Your task to perform on an android device: Show the shopping cart on newegg. Add bose soundsport free to the cart on newegg Image 0: 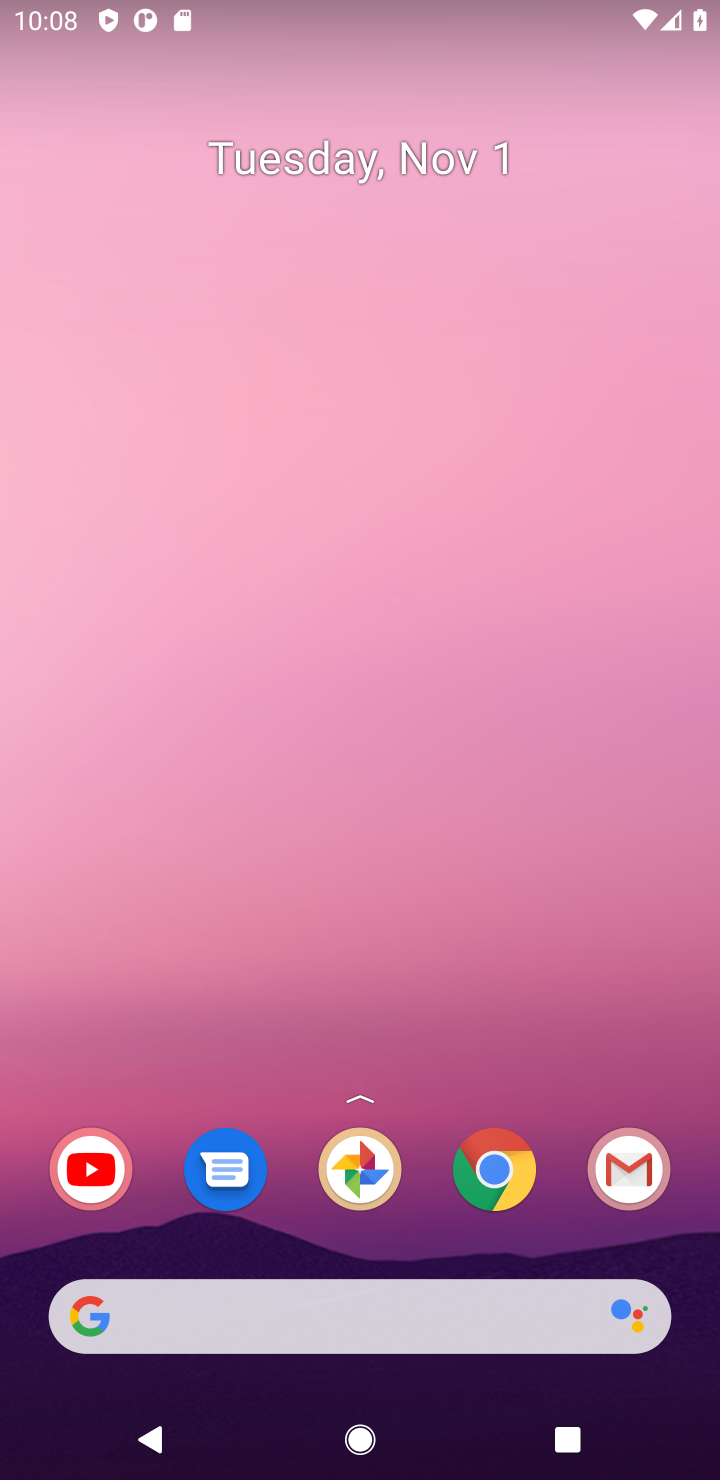
Step 0: click (501, 1179)
Your task to perform on an android device: Show the shopping cart on newegg. Add bose soundsport free to the cart on newegg Image 1: 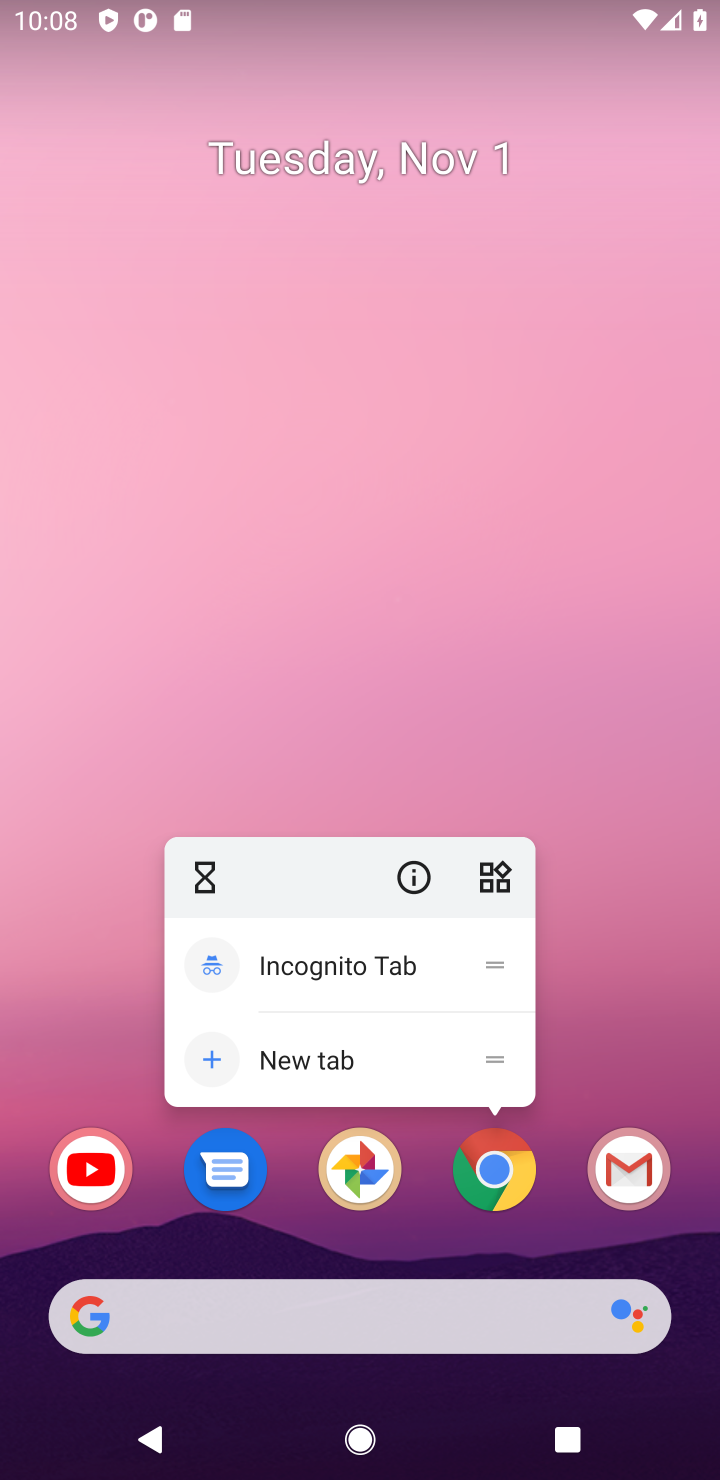
Step 1: click (501, 1179)
Your task to perform on an android device: Show the shopping cart on newegg. Add bose soundsport free to the cart on newegg Image 2: 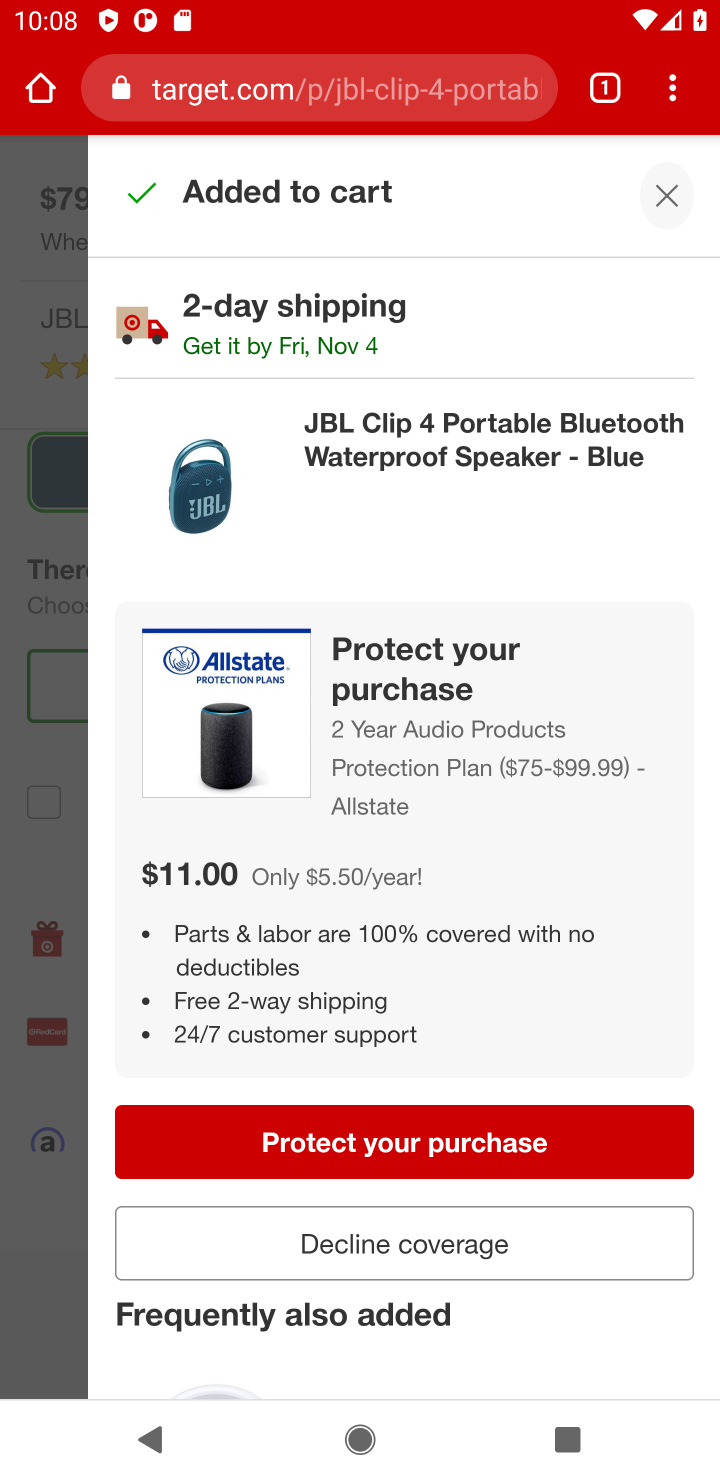
Step 2: click (410, 78)
Your task to perform on an android device: Show the shopping cart on newegg. Add bose soundsport free to the cart on newegg Image 3: 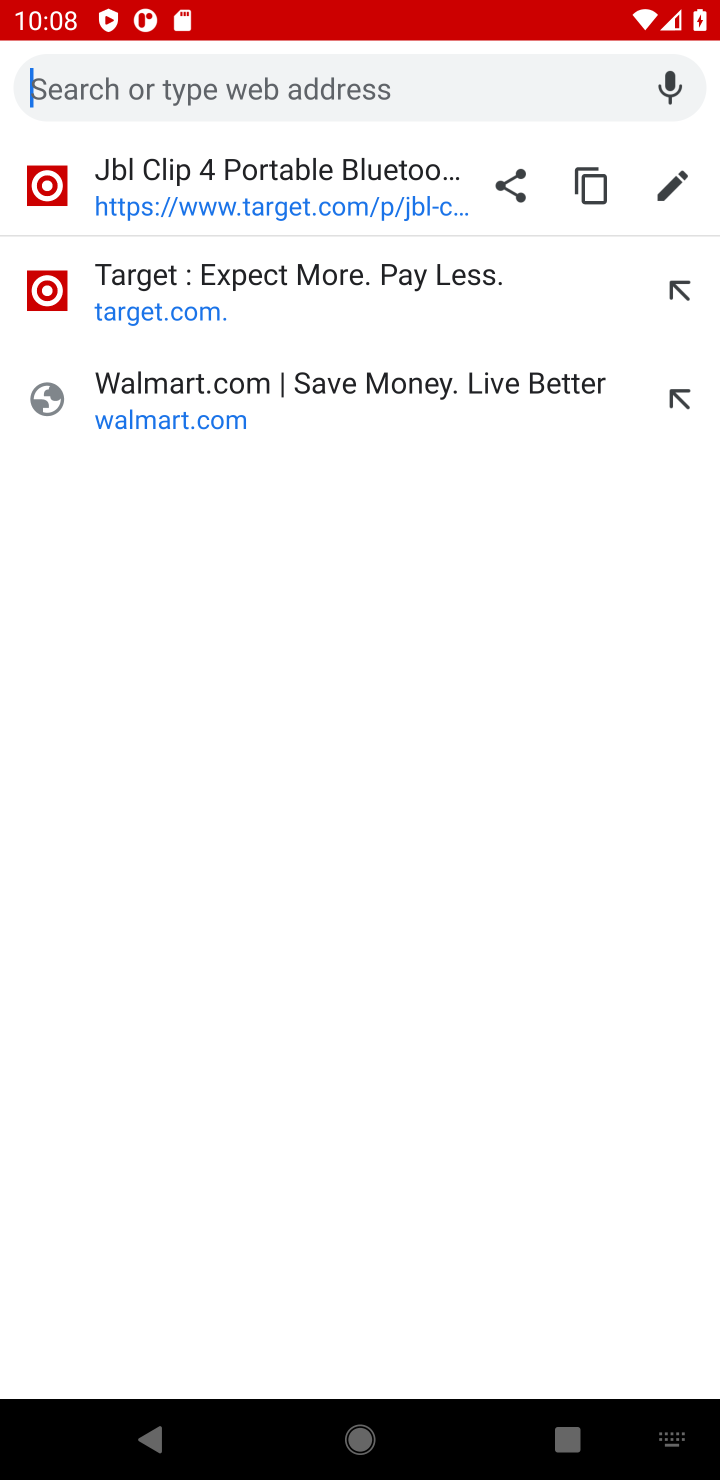
Step 3: type "newegg"
Your task to perform on an android device: Show the shopping cart on newegg. Add bose soundsport free to the cart on newegg Image 4: 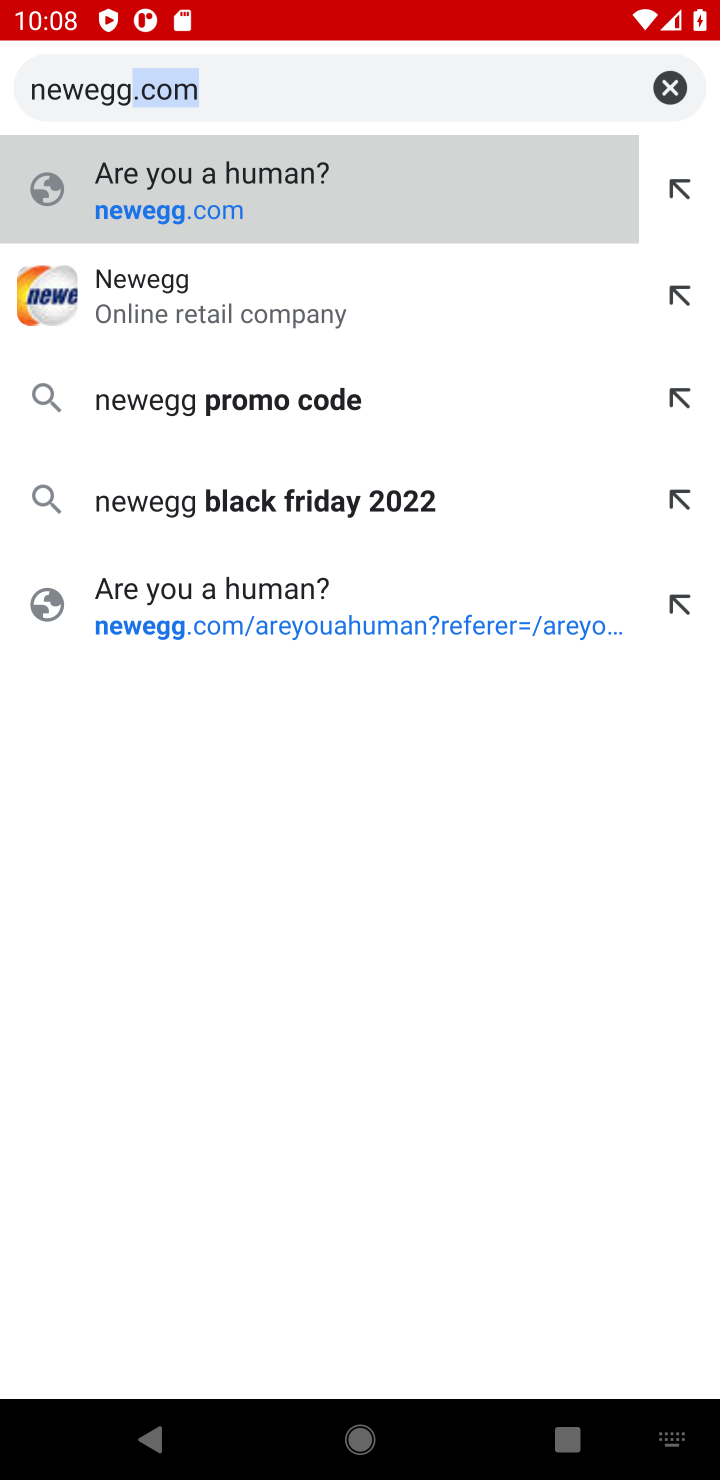
Step 4: click (353, 314)
Your task to perform on an android device: Show the shopping cart on newegg. Add bose soundsport free to the cart on newegg Image 5: 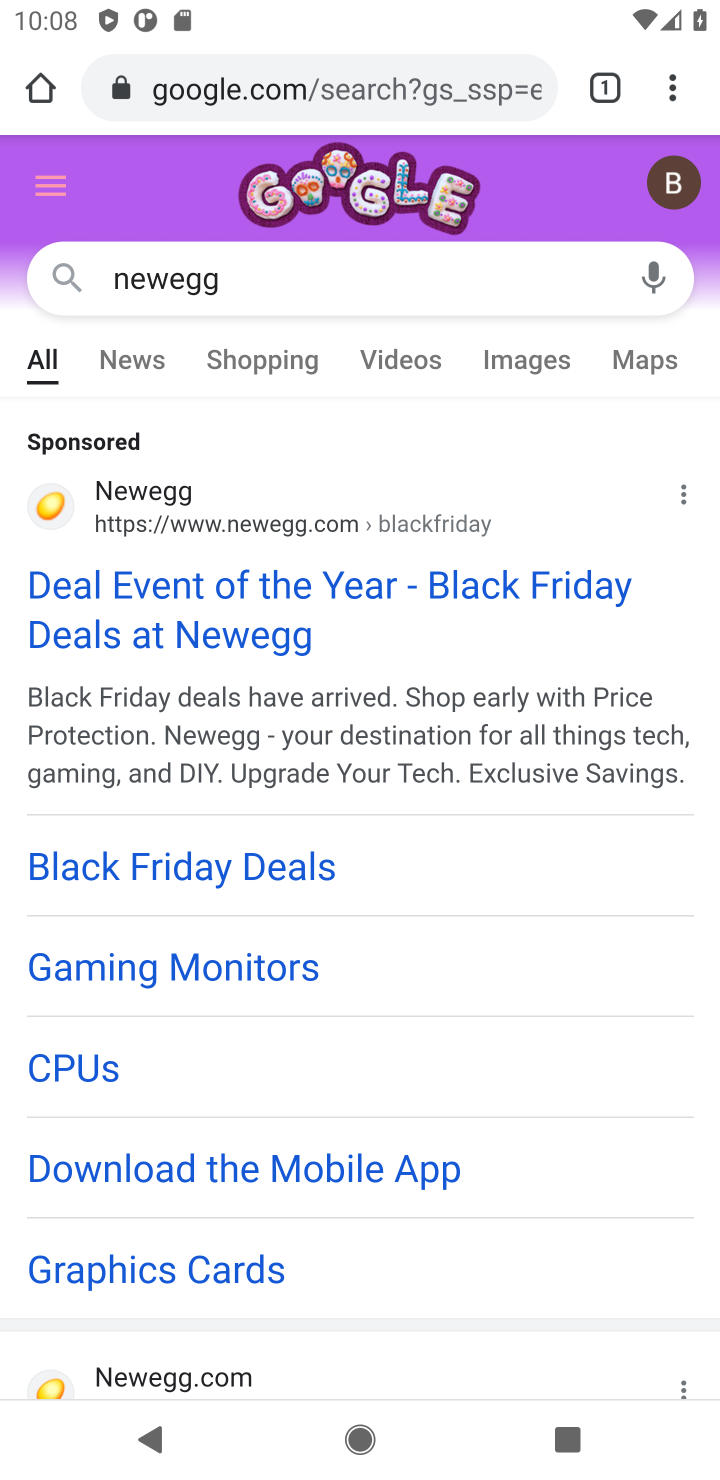
Step 5: drag from (357, 1023) to (344, 546)
Your task to perform on an android device: Show the shopping cart on newegg. Add bose soundsport free to the cart on newegg Image 6: 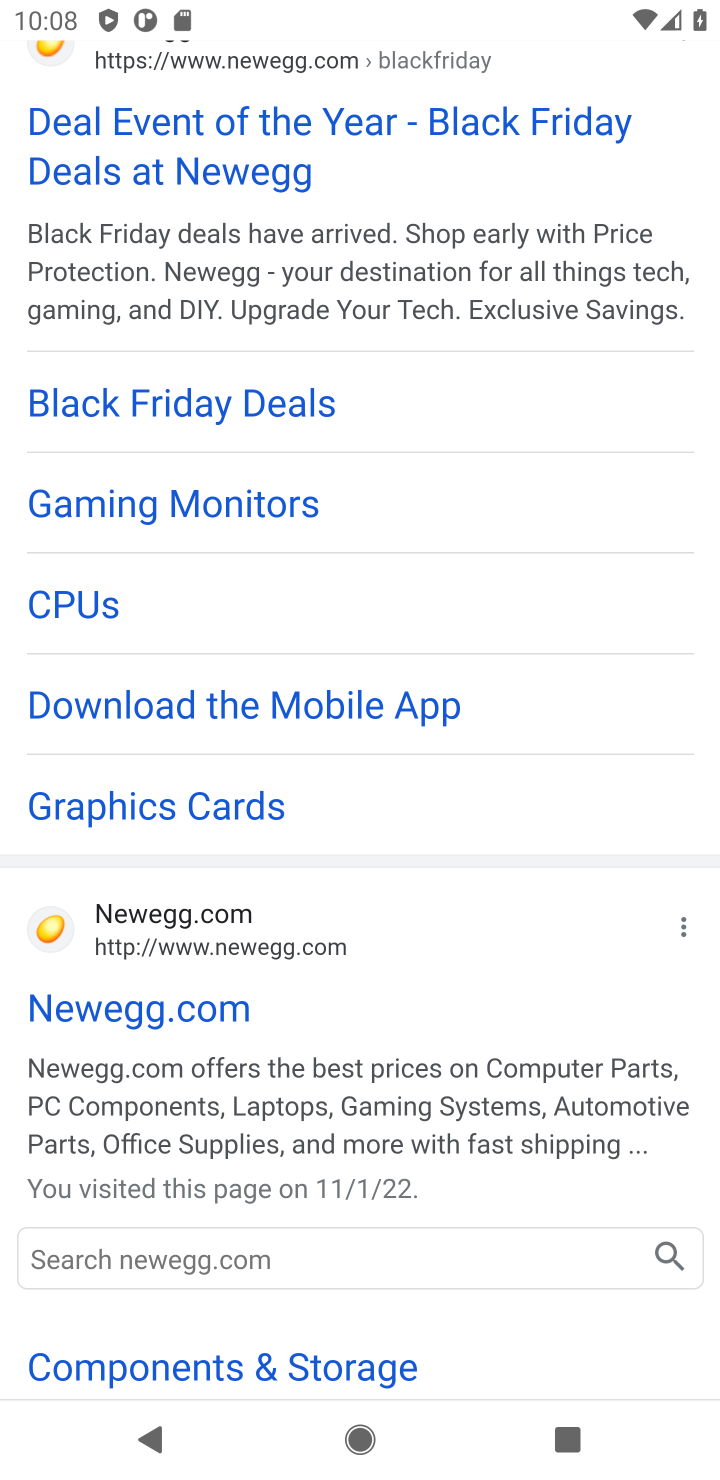
Step 6: click (208, 932)
Your task to perform on an android device: Show the shopping cart on newegg. Add bose soundsport free to the cart on newegg Image 7: 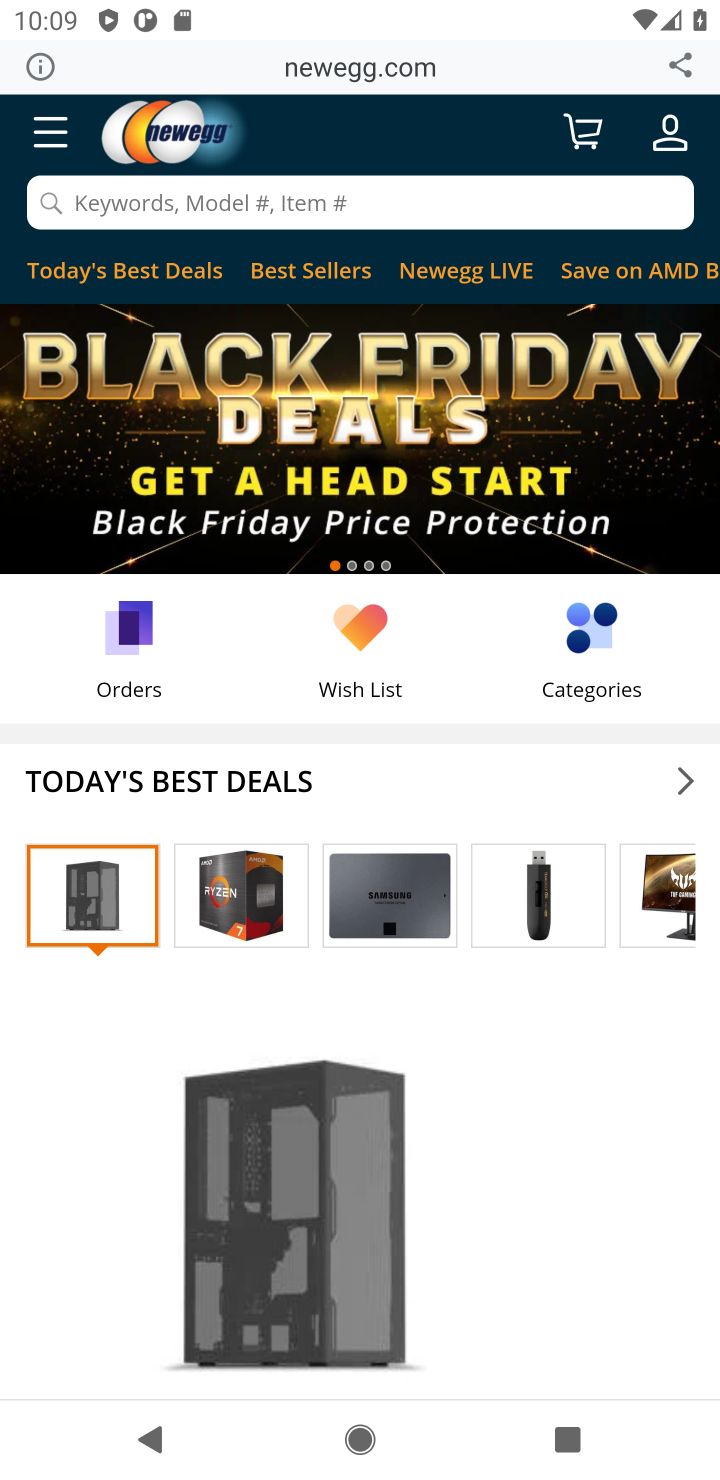
Step 7: click (587, 120)
Your task to perform on an android device: Show the shopping cart on newegg. Add bose soundsport free to the cart on newegg Image 8: 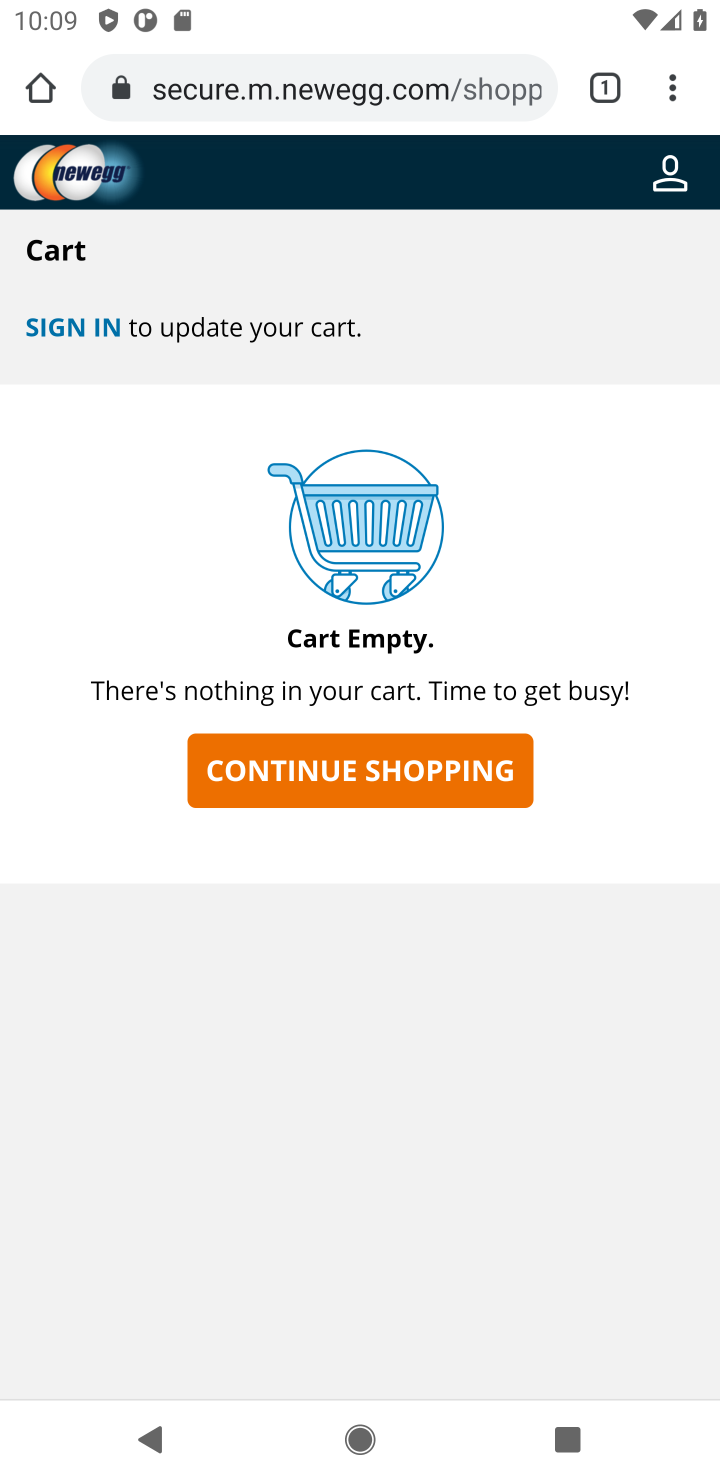
Step 8: press back button
Your task to perform on an android device: Show the shopping cart on newegg. Add bose soundsport free to the cart on newegg Image 9: 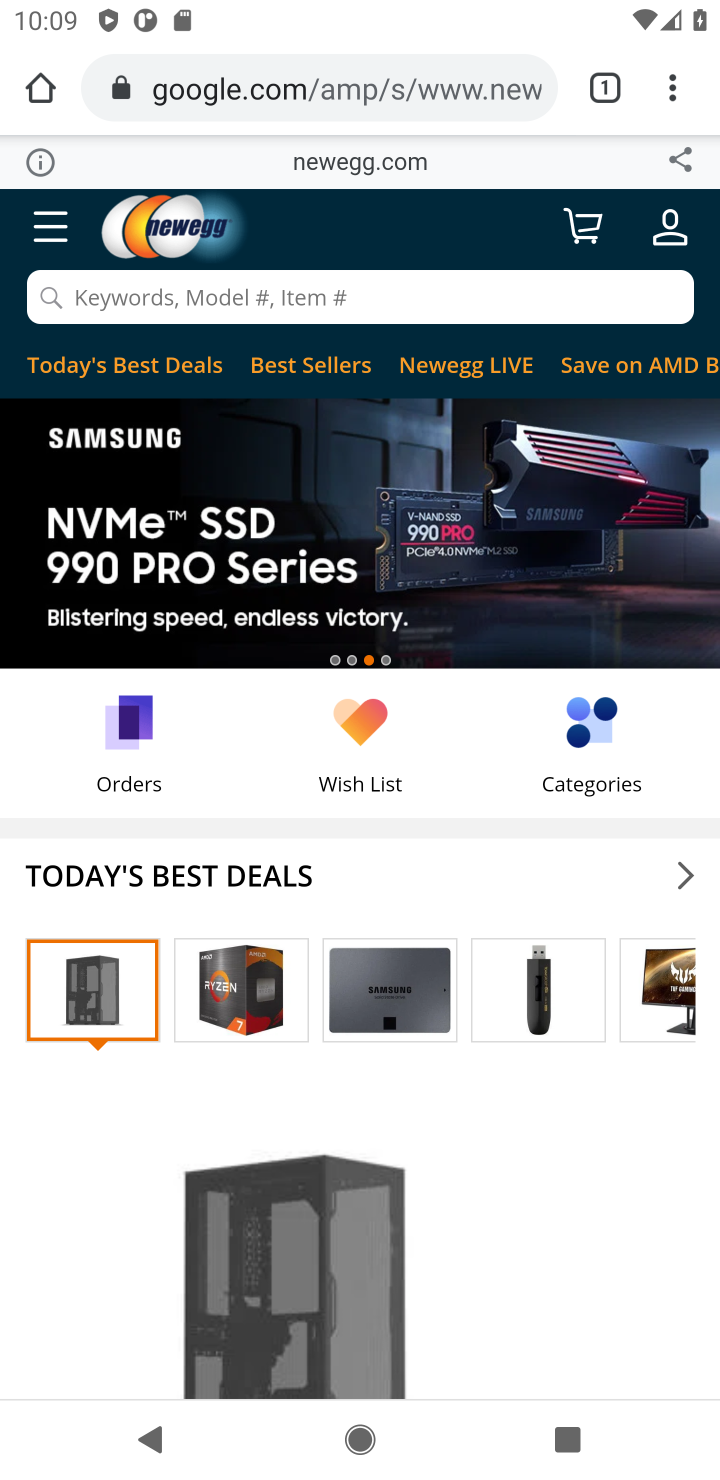
Step 9: click (321, 301)
Your task to perform on an android device: Show the shopping cart on newegg. Add bose soundsport free to the cart on newegg Image 10: 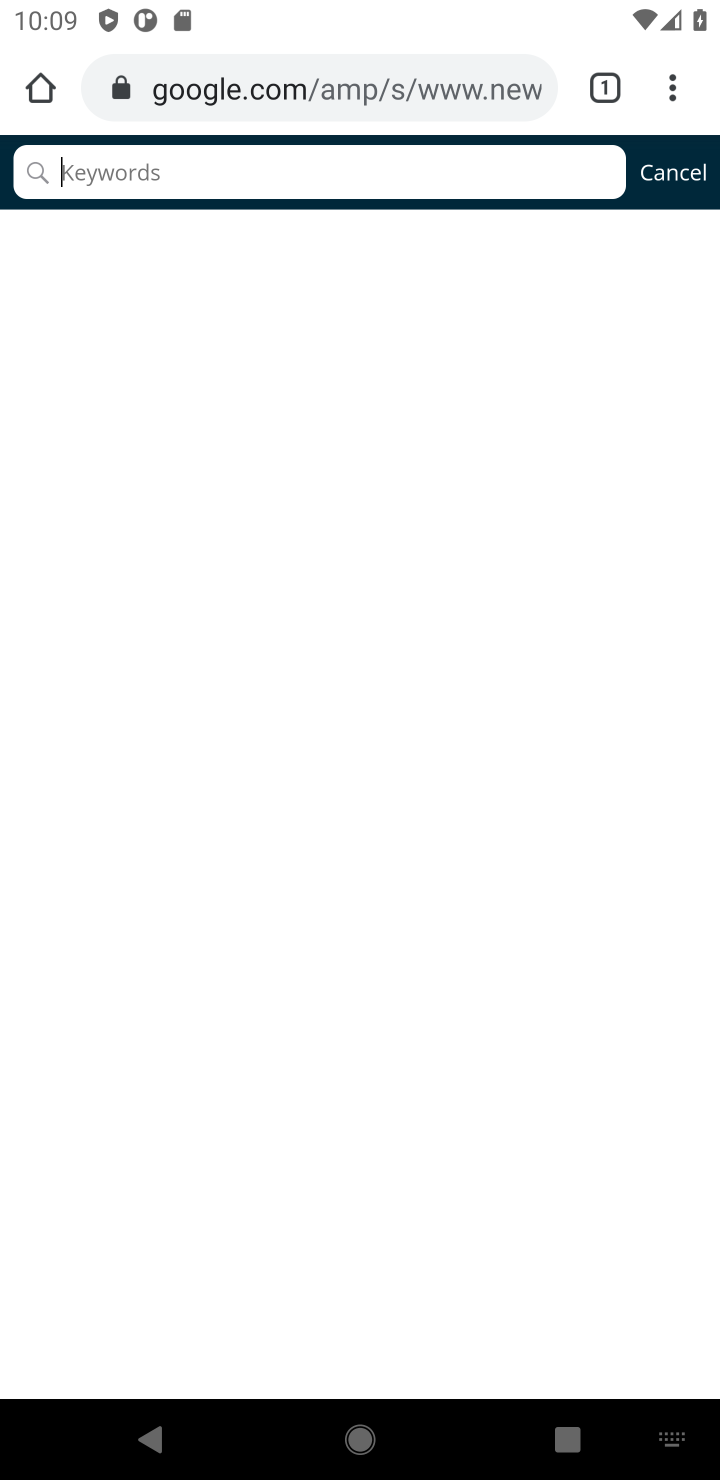
Step 10: press enter
Your task to perform on an android device: Show the shopping cart on newegg. Add bose soundsport free to the cart on newegg Image 11: 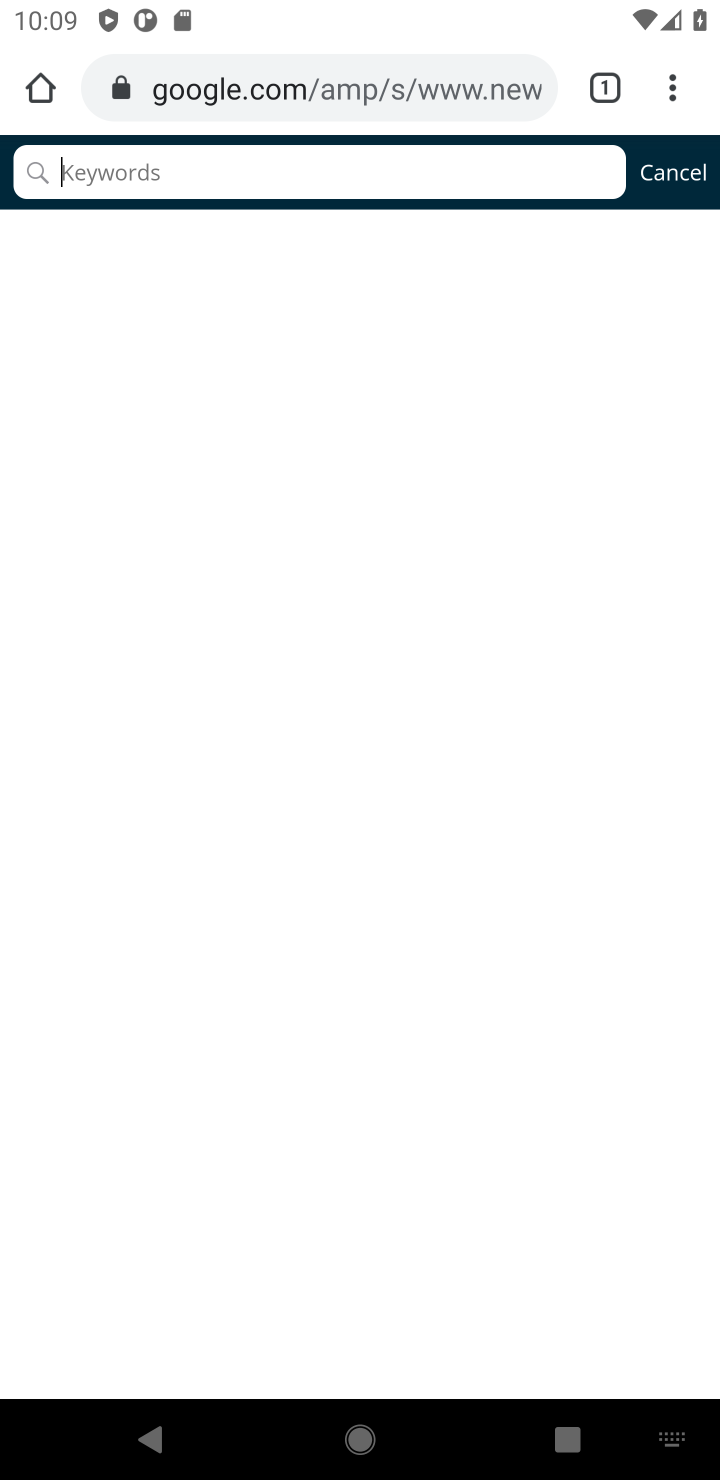
Step 11: type "bose soundsport free"
Your task to perform on an android device: Show the shopping cart on newegg. Add bose soundsport free to the cart on newegg Image 12: 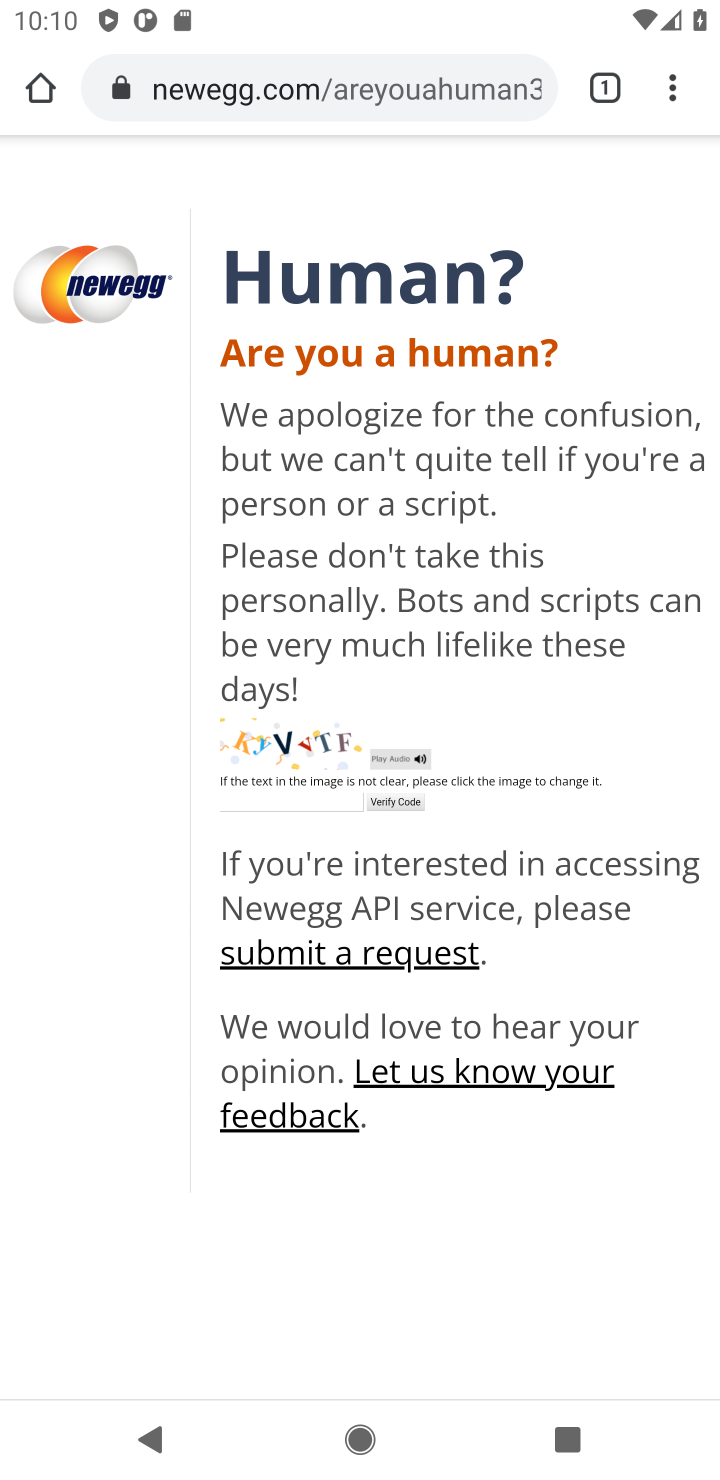
Step 12: task complete